Your task to perform on an android device: Turn off the flashlight Image 0: 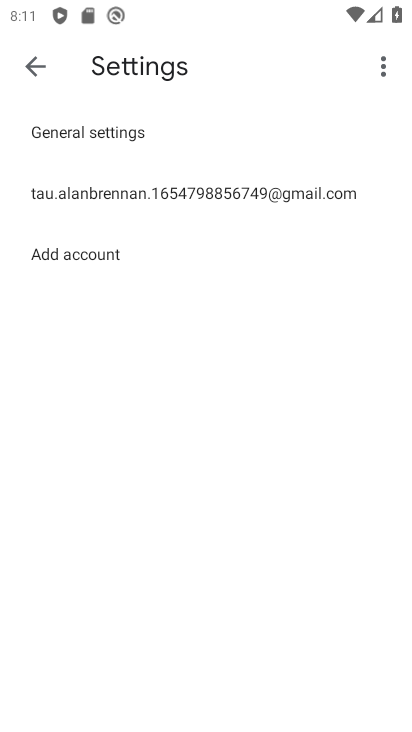
Step 0: press home button
Your task to perform on an android device: Turn off the flashlight Image 1: 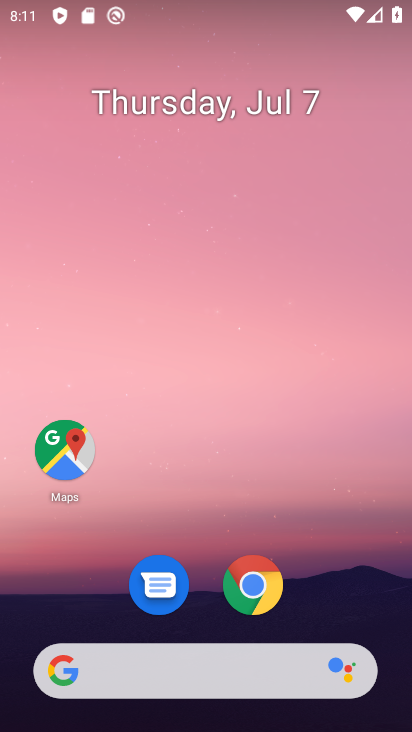
Step 1: drag from (341, 584) to (347, 23)
Your task to perform on an android device: Turn off the flashlight Image 2: 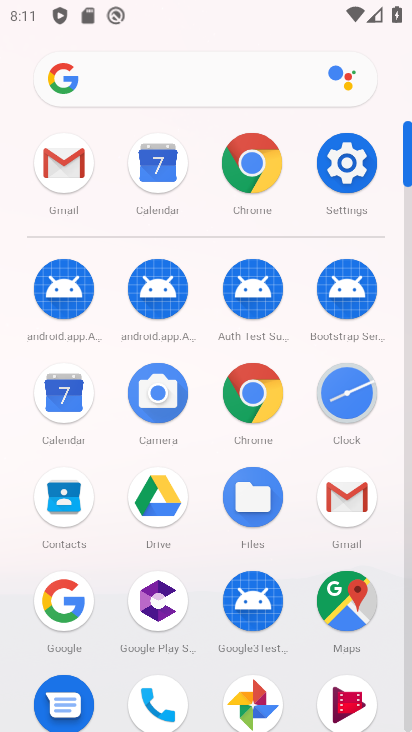
Step 2: click (333, 155)
Your task to perform on an android device: Turn off the flashlight Image 3: 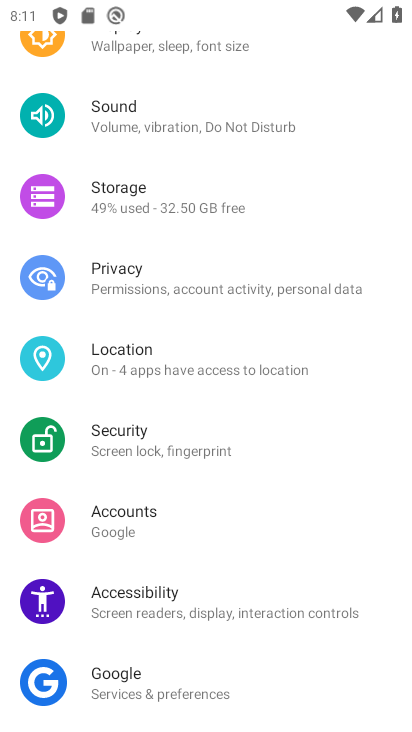
Step 3: drag from (238, 171) to (210, 730)
Your task to perform on an android device: Turn off the flashlight Image 4: 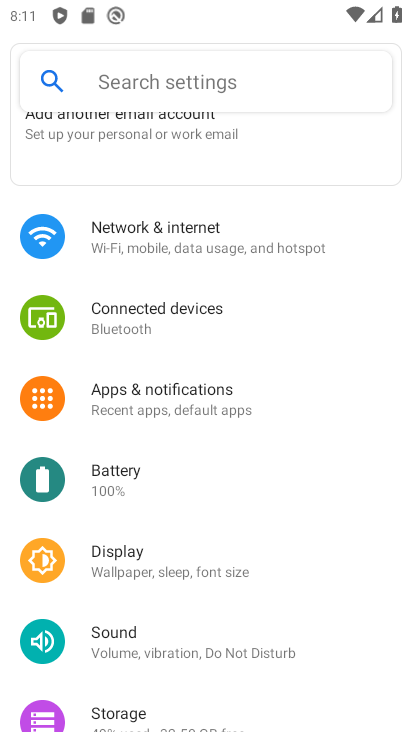
Step 4: drag from (238, 276) to (221, 596)
Your task to perform on an android device: Turn off the flashlight Image 5: 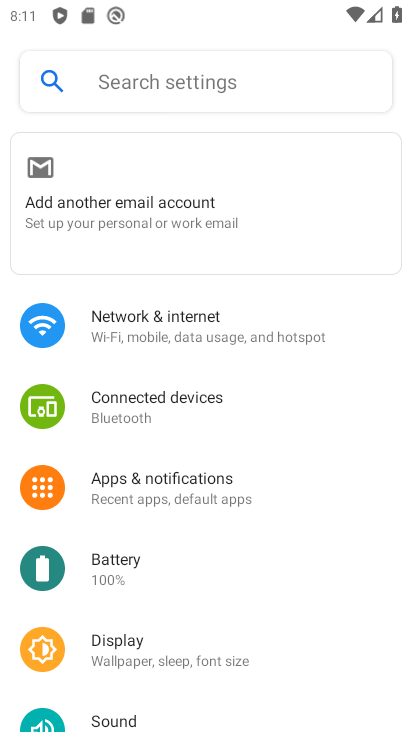
Step 5: click (262, 78)
Your task to perform on an android device: Turn off the flashlight Image 6: 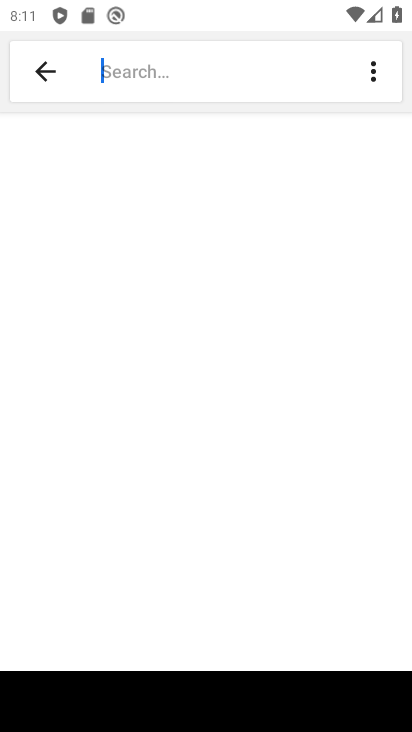
Step 6: type "Flashlight"
Your task to perform on an android device: Turn off the flashlight Image 7: 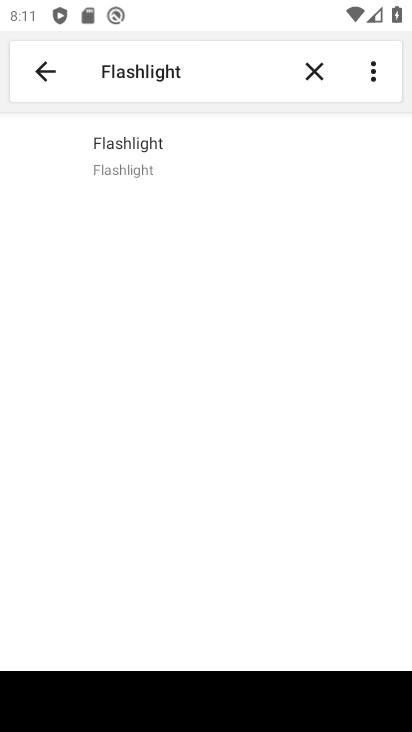
Step 7: click (132, 161)
Your task to perform on an android device: Turn off the flashlight Image 8: 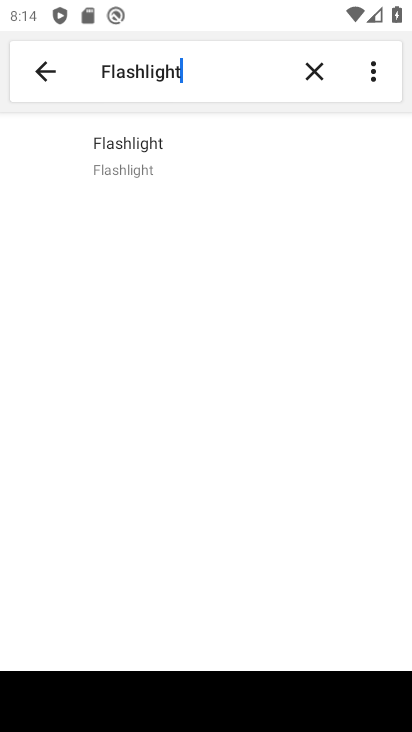
Step 8: task complete